Your task to perform on an android device: change the clock display to show seconds Image 0: 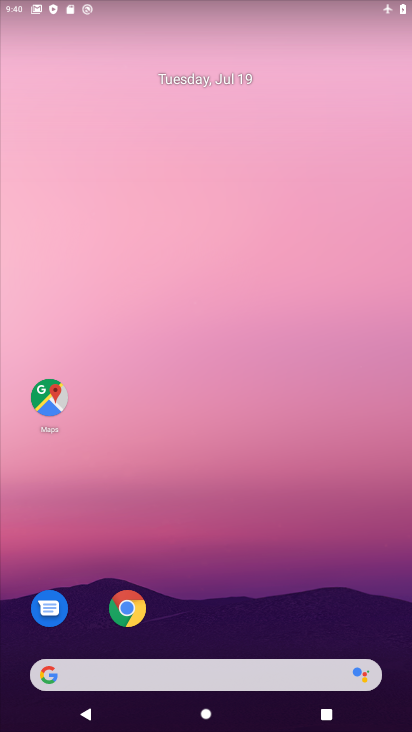
Step 0: drag from (279, 604) to (148, 107)
Your task to perform on an android device: change the clock display to show seconds Image 1: 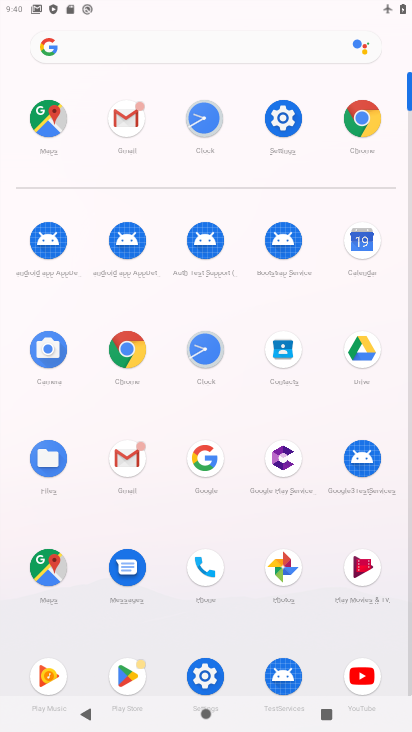
Step 1: click (200, 114)
Your task to perform on an android device: change the clock display to show seconds Image 2: 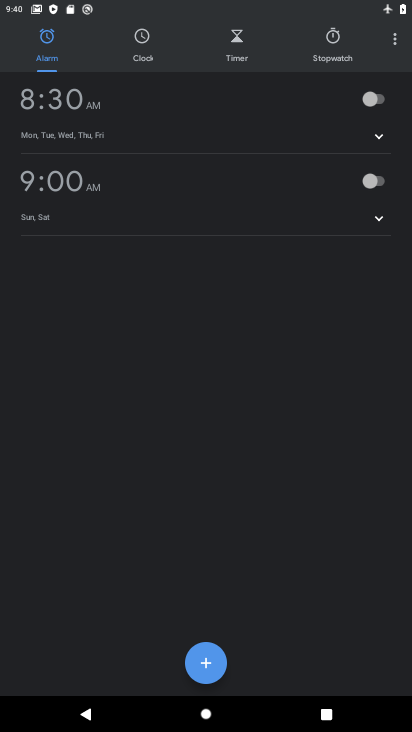
Step 2: click (391, 37)
Your task to perform on an android device: change the clock display to show seconds Image 3: 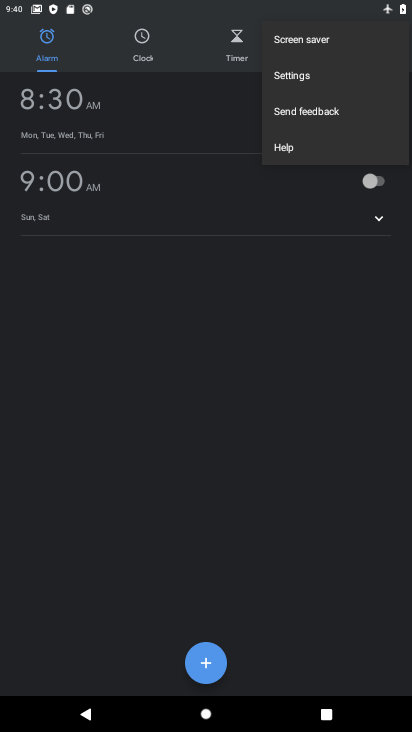
Step 3: click (286, 71)
Your task to perform on an android device: change the clock display to show seconds Image 4: 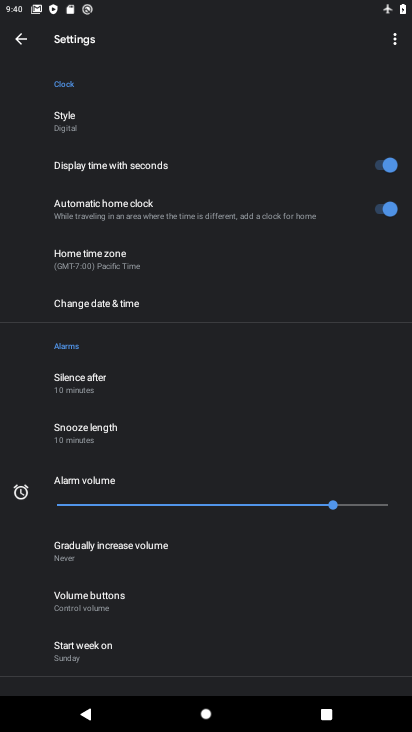
Step 4: task complete